Your task to perform on an android device: Open accessibility settings Image 0: 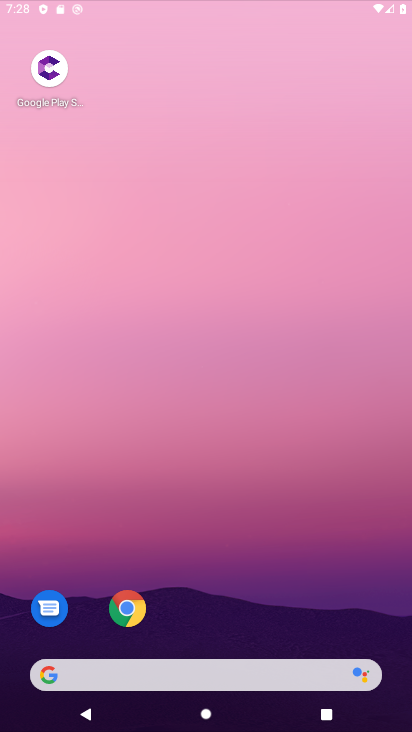
Step 0: click (305, 144)
Your task to perform on an android device: Open accessibility settings Image 1: 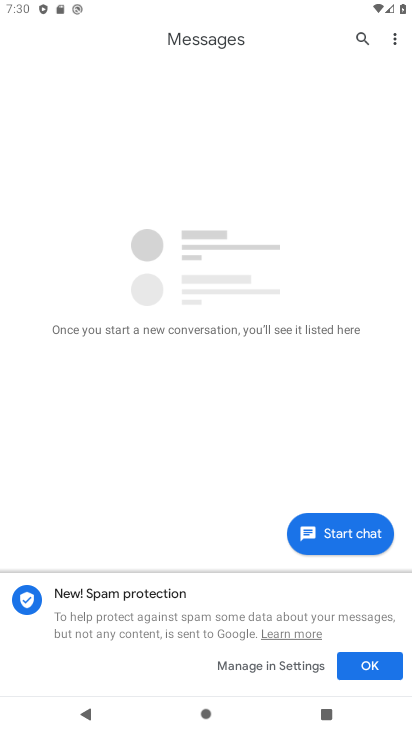
Step 1: press home button
Your task to perform on an android device: Open accessibility settings Image 2: 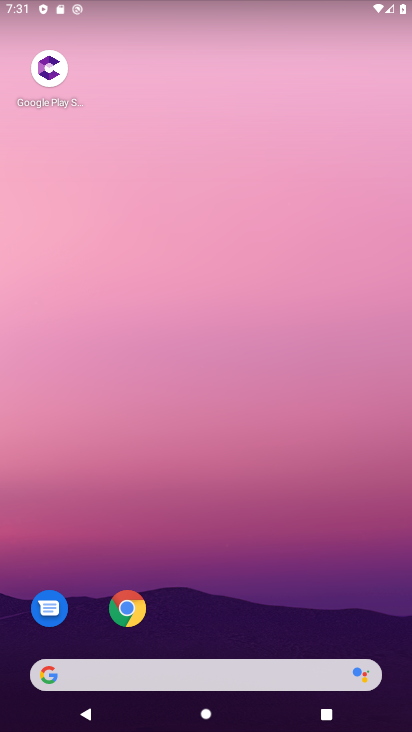
Step 2: drag from (231, 532) to (229, 154)
Your task to perform on an android device: Open accessibility settings Image 3: 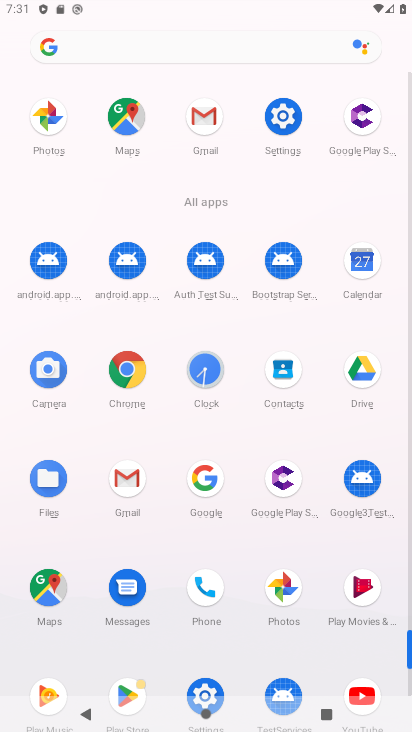
Step 3: click (284, 116)
Your task to perform on an android device: Open accessibility settings Image 4: 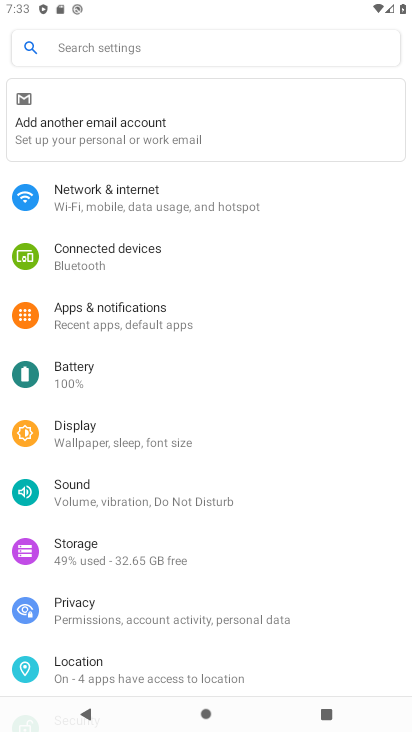
Step 4: drag from (159, 626) to (158, 360)
Your task to perform on an android device: Open accessibility settings Image 5: 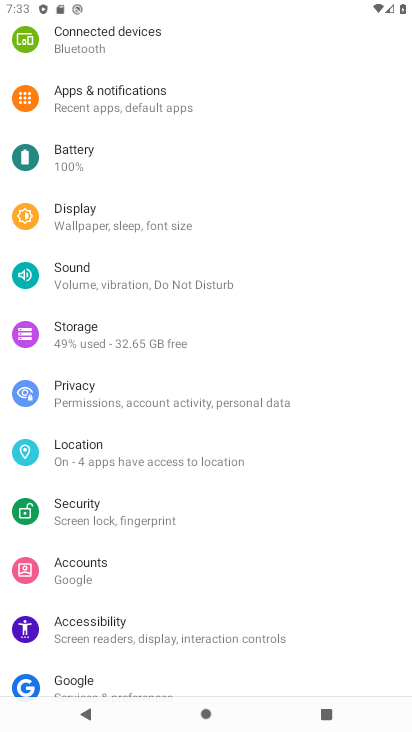
Step 5: click (99, 631)
Your task to perform on an android device: Open accessibility settings Image 6: 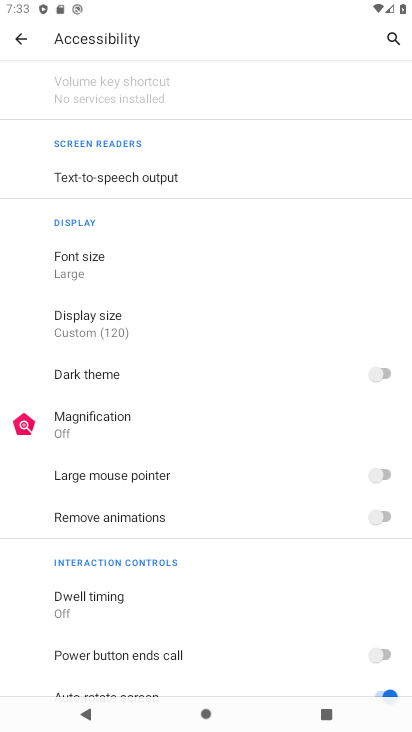
Step 6: task complete